Your task to perform on an android device: clear history in the chrome app Image 0: 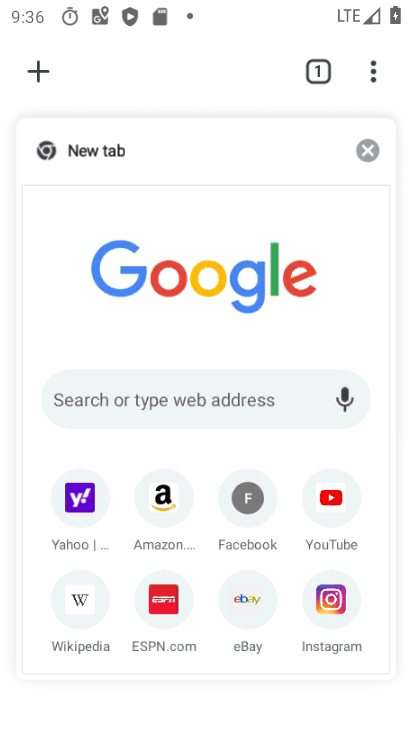
Step 0: press home button
Your task to perform on an android device: clear history in the chrome app Image 1: 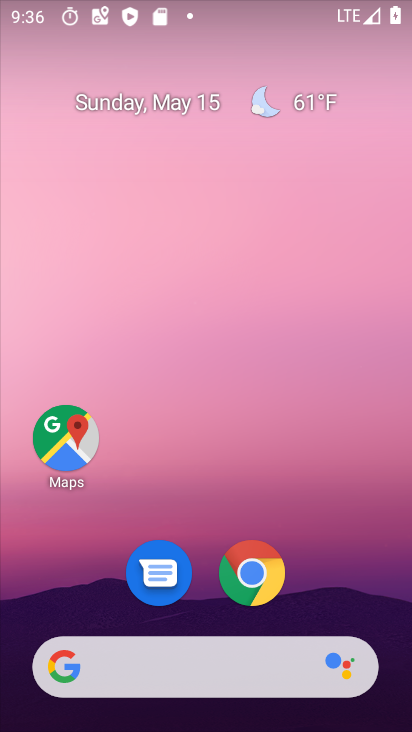
Step 1: click (254, 576)
Your task to perform on an android device: clear history in the chrome app Image 2: 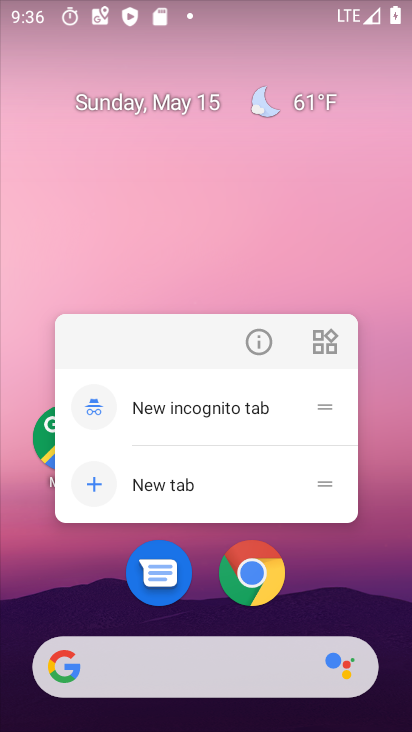
Step 2: click (246, 567)
Your task to perform on an android device: clear history in the chrome app Image 3: 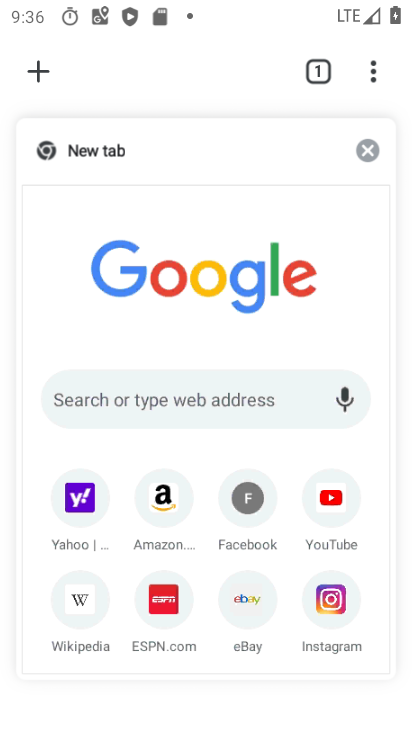
Step 3: click (258, 244)
Your task to perform on an android device: clear history in the chrome app Image 4: 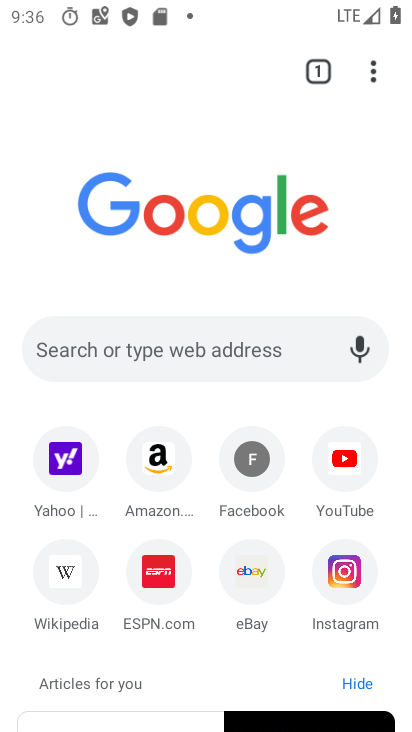
Step 4: click (373, 82)
Your task to perform on an android device: clear history in the chrome app Image 5: 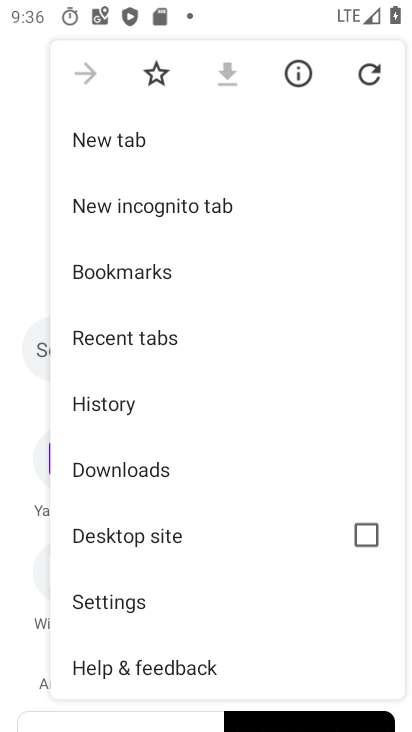
Step 5: click (183, 597)
Your task to perform on an android device: clear history in the chrome app Image 6: 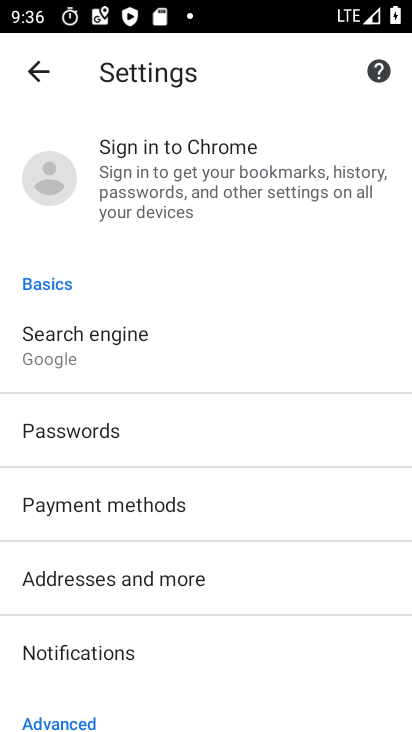
Step 6: drag from (59, 694) to (231, 312)
Your task to perform on an android device: clear history in the chrome app Image 7: 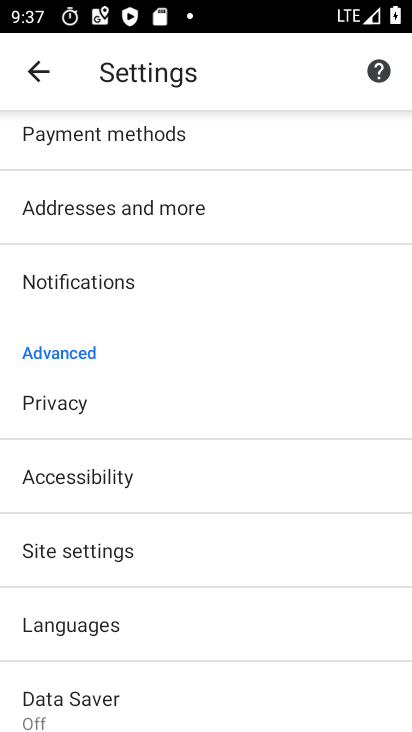
Step 7: click (148, 408)
Your task to perform on an android device: clear history in the chrome app Image 8: 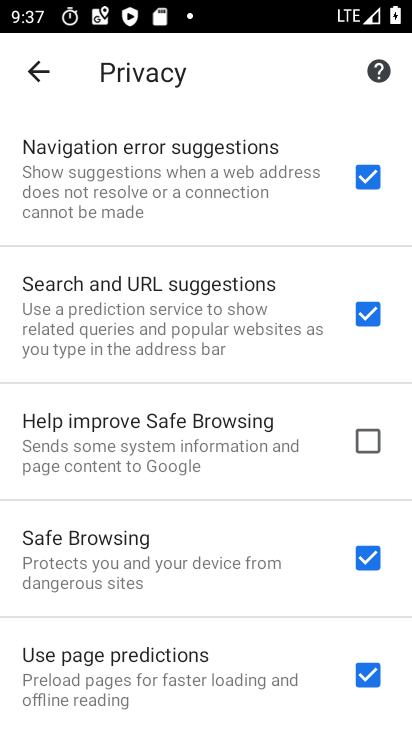
Step 8: press back button
Your task to perform on an android device: clear history in the chrome app Image 9: 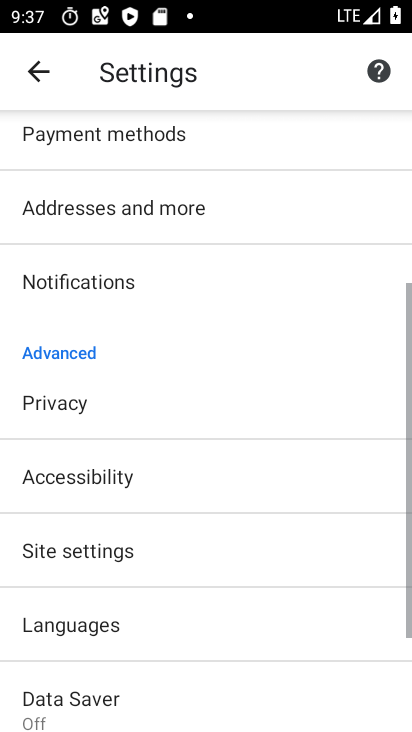
Step 9: drag from (49, 706) to (177, 307)
Your task to perform on an android device: clear history in the chrome app Image 10: 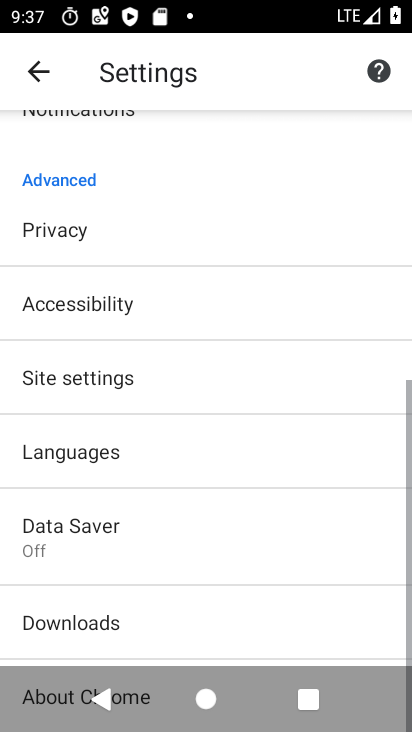
Step 10: drag from (109, 645) to (258, 280)
Your task to perform on an android device: clear history in the chrome app Image 11: 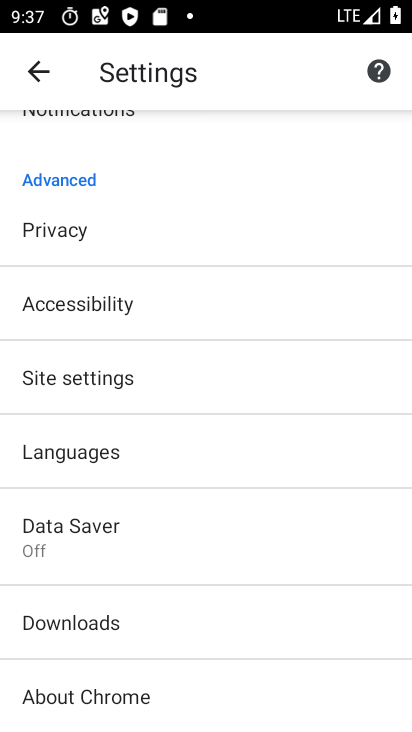
Step 11: click (121, 242)
Your task to perform on an android device: clear history in the chrome app Image 12: 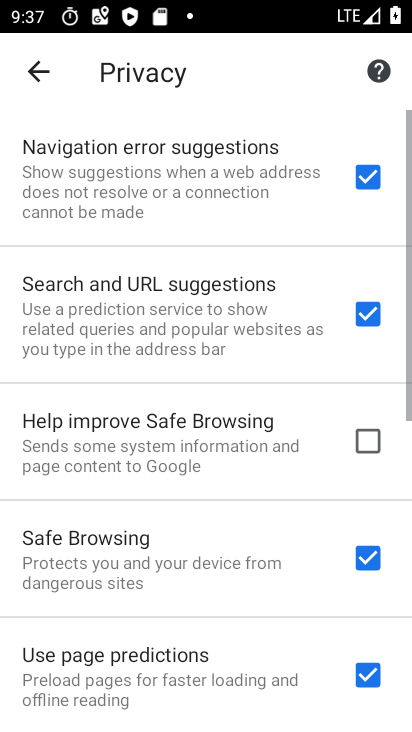
Step 12: drag from (58, 564) to (238, 117)
Your task to perform on an android device: clear history in the chrome app Image 13: 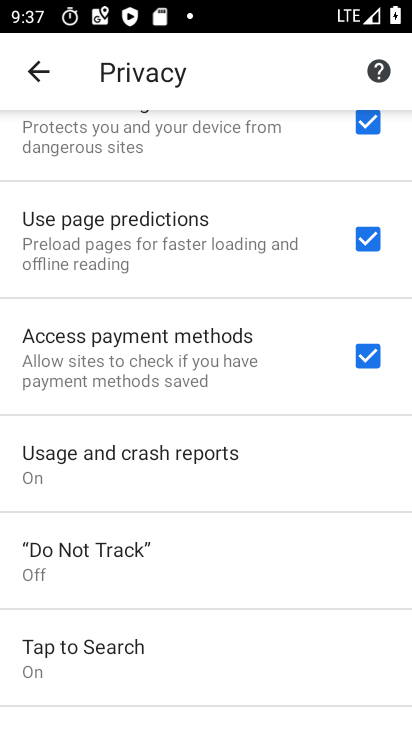
Step 13: drag from (150, 610) to (286, 205)
Your task to perform on an android device: clear history in the chrome app Image 14: 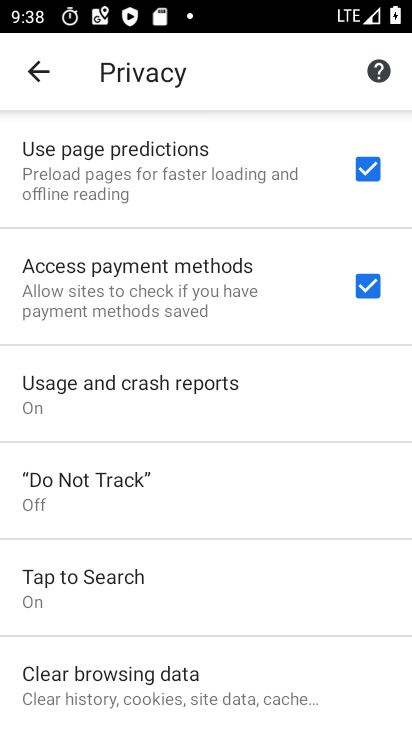
Step 14: click (156, 697)
Your task to perform on an android device: clear history in the chrome app Image 15: 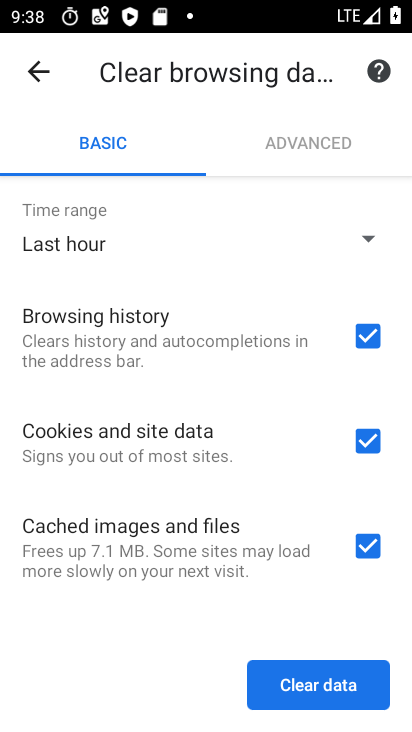
Step 15: click (293, 683)
Your task to perform on an android device: clear history in the chrome app Image 16: 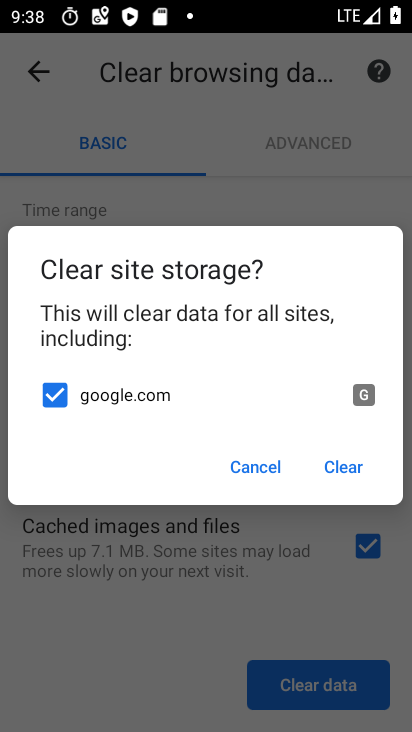
Step 16: click (364, 478)
Your task to perform on an android device: clear history in the chrome app Image 17: 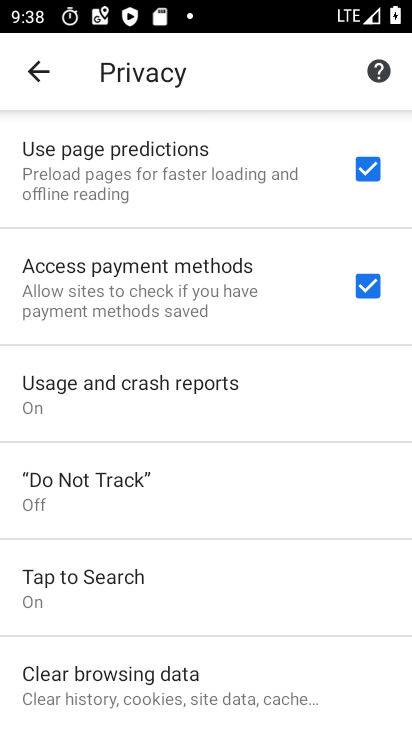
Step 17: task complete